Your task to perform on an android device: turn on the 24-hour format for clock Image 0: 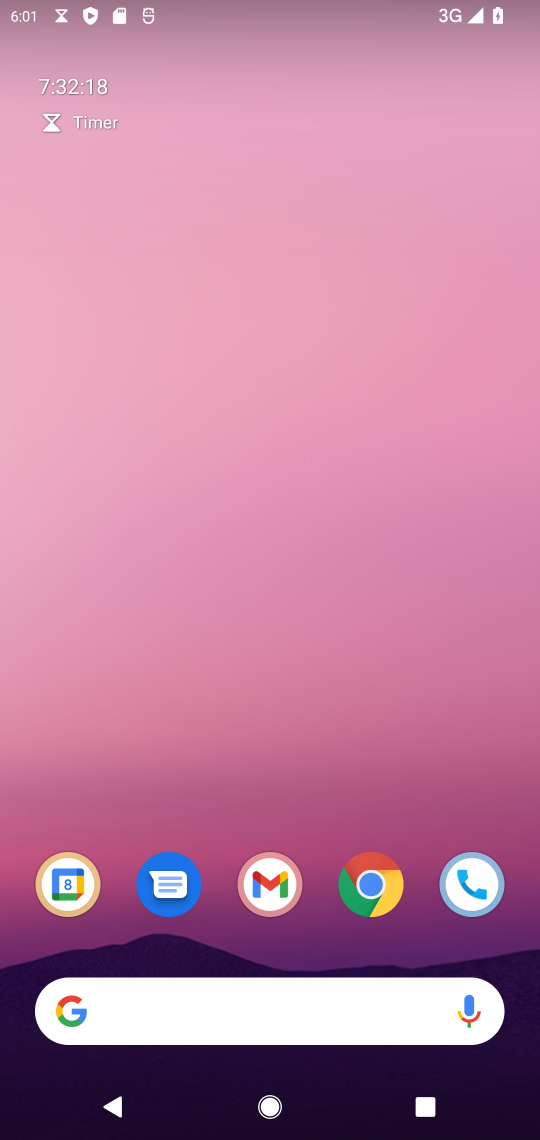
Step 0: drag from (330, 803) to (248, 99)
Your task to perform on an android device: turn on the 24-hour format for clock Image 1: 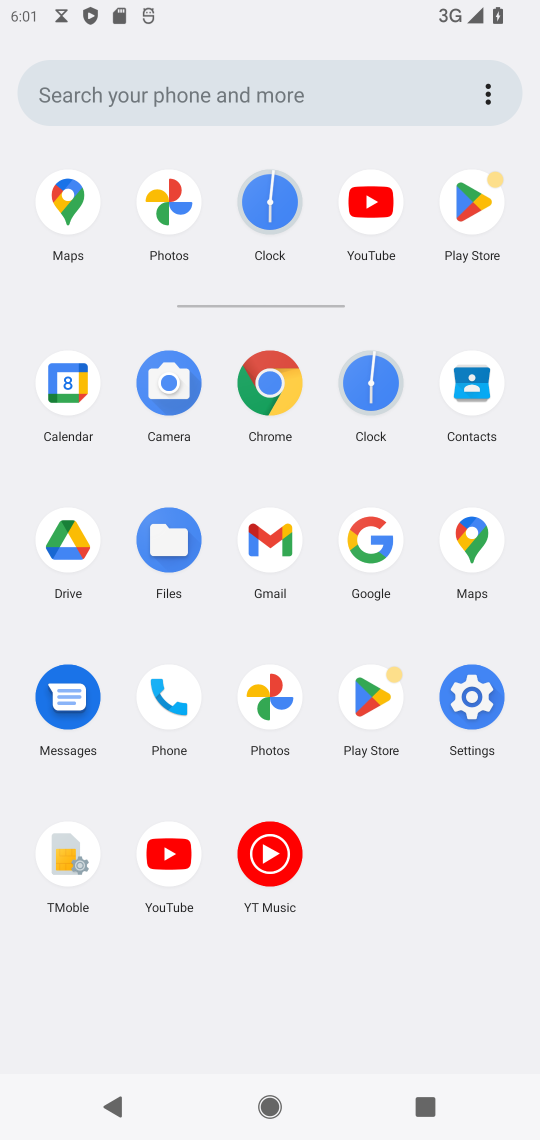
Step 1: click (381, 381)
Your task to perform on an android device: turn on the 24-hour format for clock Image 2: 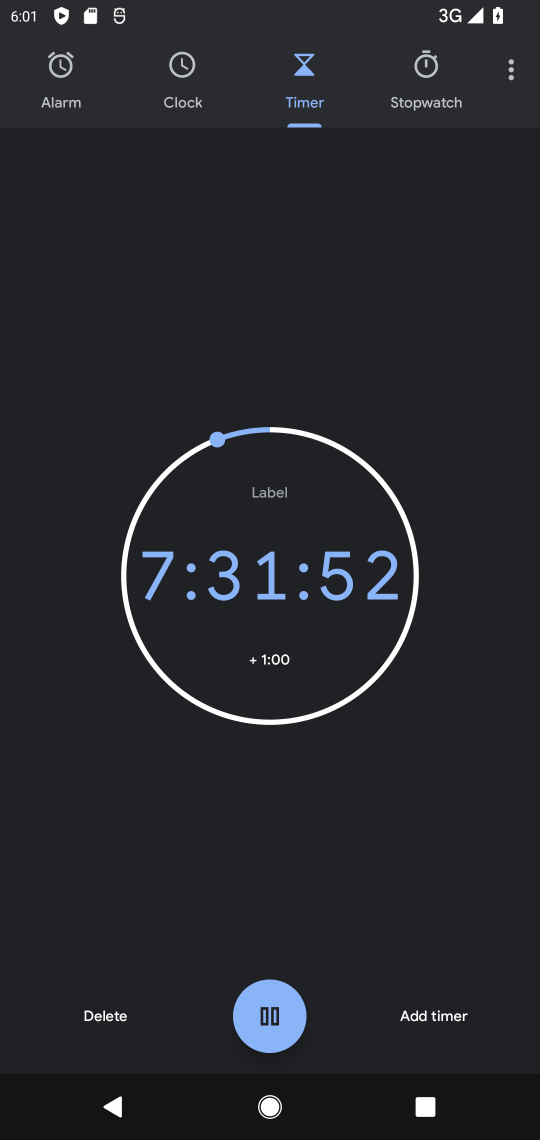
Step 2: click (507, 74)
Your task to perform on an android device: turn on the 24-hour format for clock Image 3: 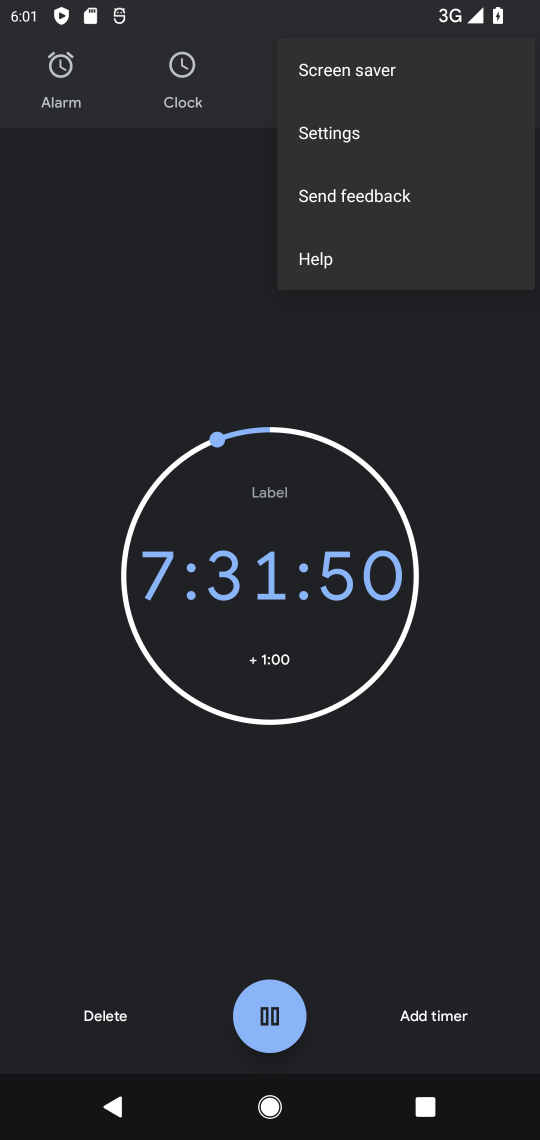
Step 3: click (386, 136)
Your task to perform on an android device: turn on the 24-hour format for clock Image 4: 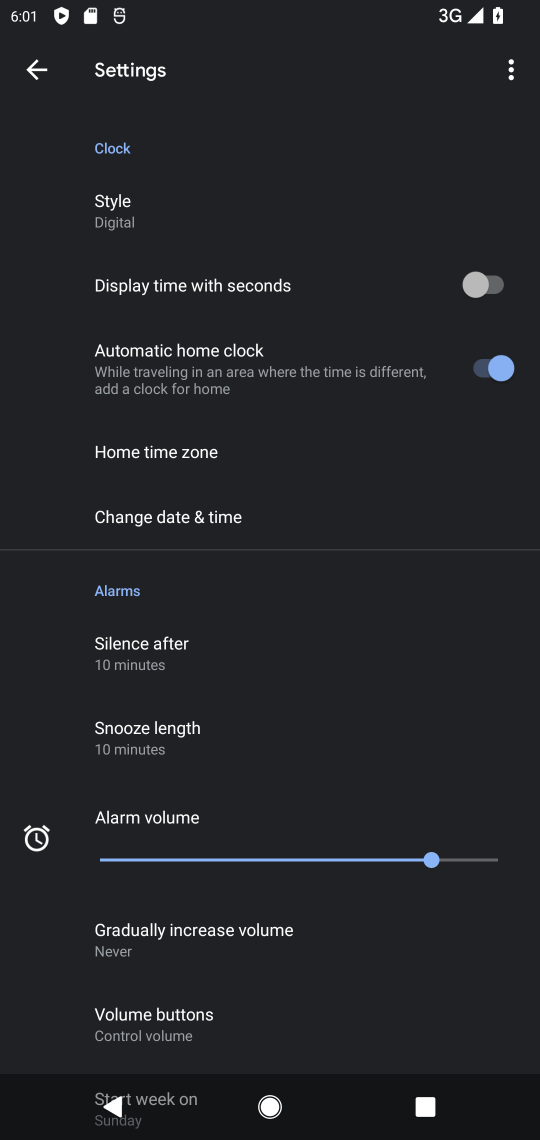
Step 4: click (304, 525)
Your task to perform on an android device: turn on the 24-hour format for clock Image 5: 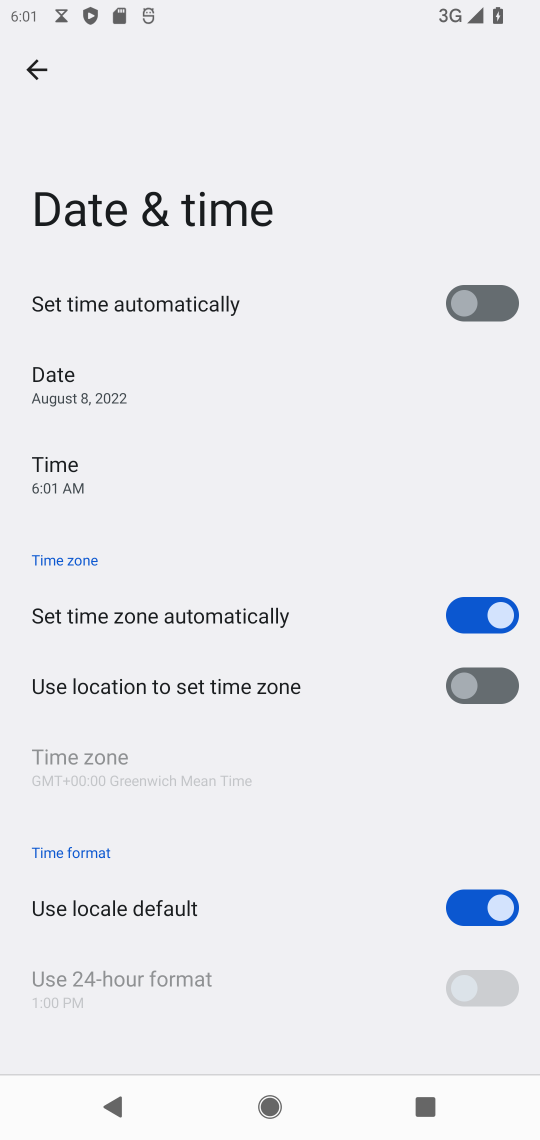
Step 5: click (468, 921)
Your task to perform on an android device: turn on the 24-hour format for clock Image 6: 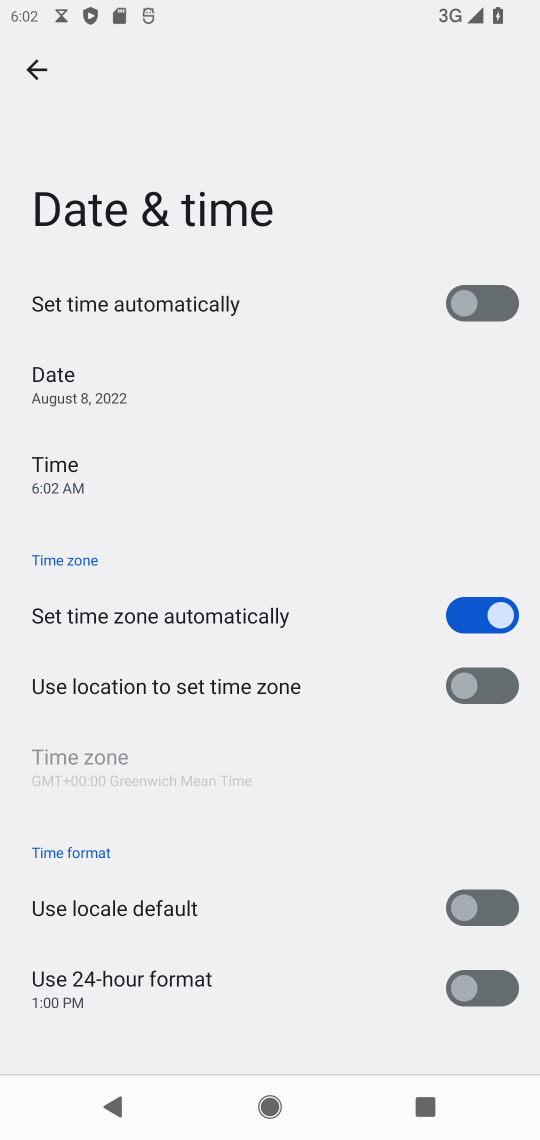
Step 6: click (495, 993)
Your task to perform on an android device: turn on the 24-hour format for clock Image 7: 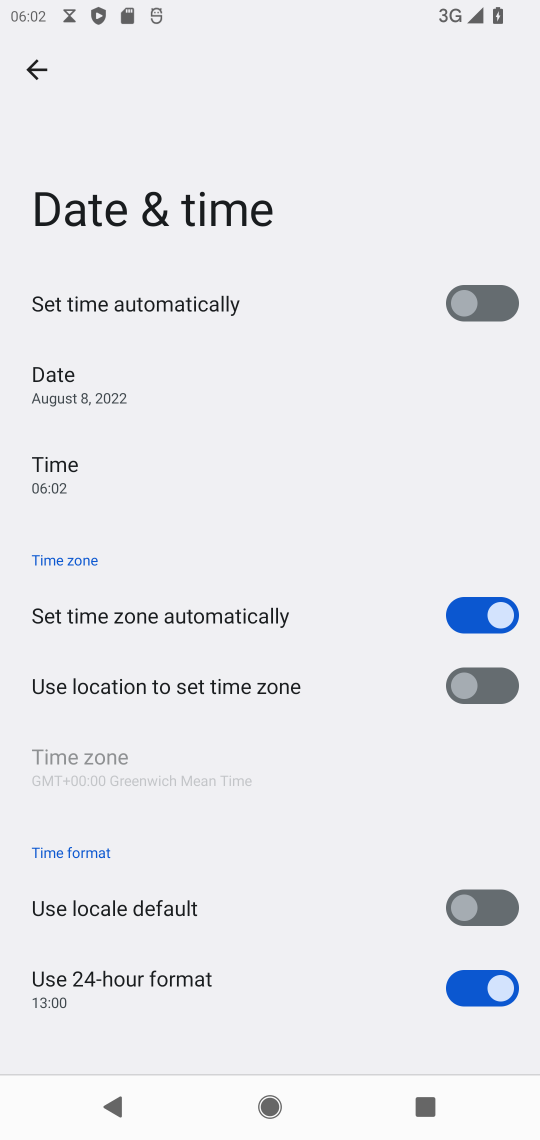
Step 7: task complete